Your task to perform on an android device: Turn on the flashlight Image 0: 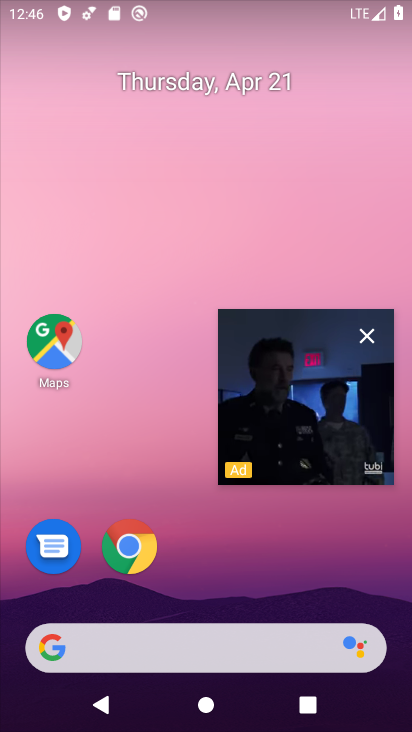
Step 0: click (364, 338)
Your task to perform on an android device: Turn on the flashlight Image 1: 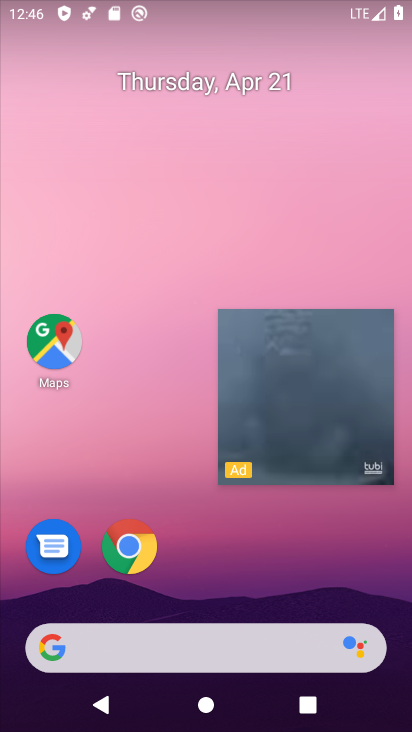
Step 1: click (371, 344)
Your task to perform on an android device: Turn on the flashlight Image 2: 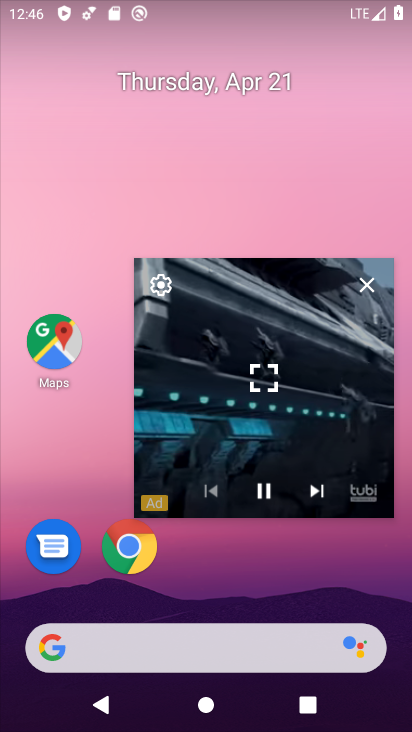
Step 2: click (373, 286)
Your task to perform on an android device: Turn on the flashlight Image 3: 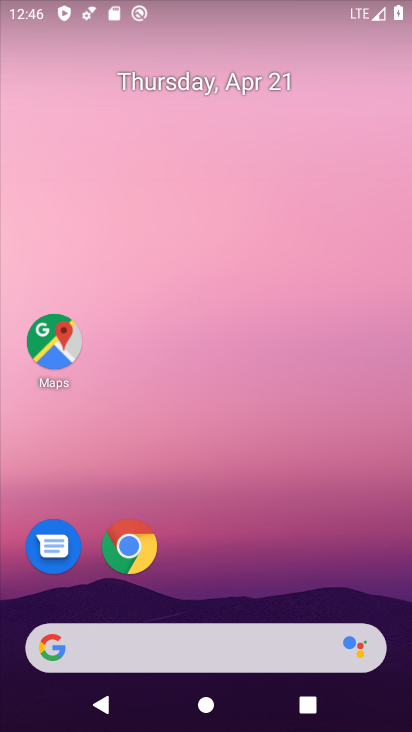
Step 3: drag from (283, 558) to (258, 74)
Your task to perform on an android device: Turn on the flashlight Image 4: 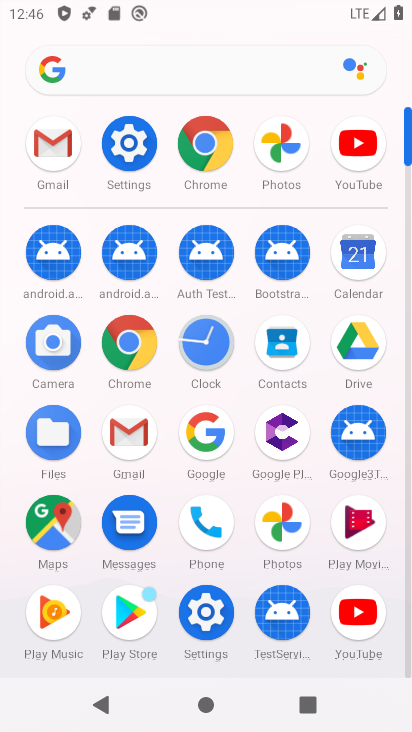
Step 4: click (136, 159)
Your task to perform on an android device: Turn on the flashlight Image 5: 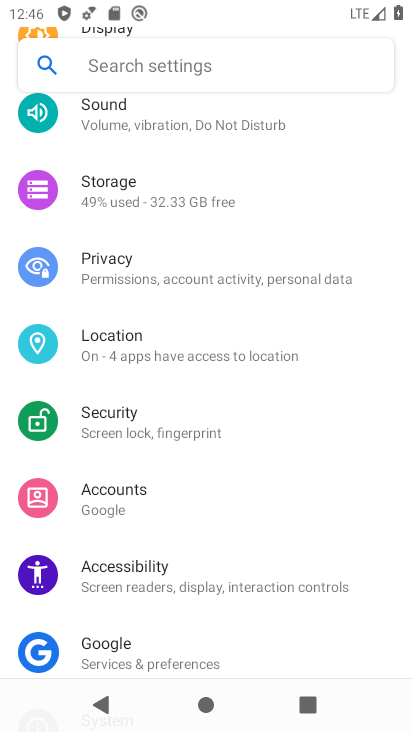
Step 5: click (191, 65)
Your task to perform on an android device: Turn on the flashlight Image 6: 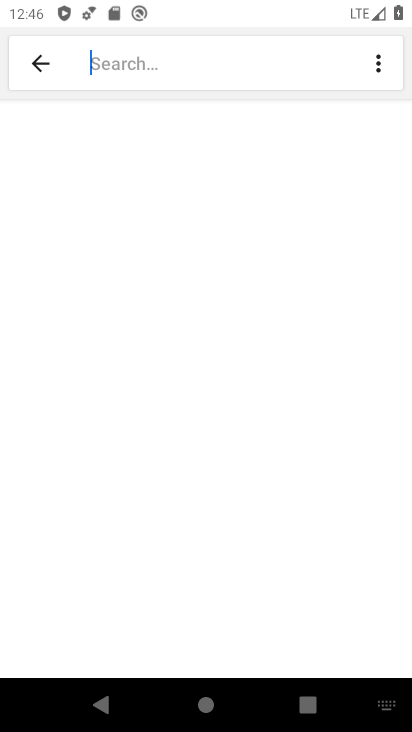
Step 6: type "flashlight"
Your task to perform on an android device: Turn on the flashlight Image 7: 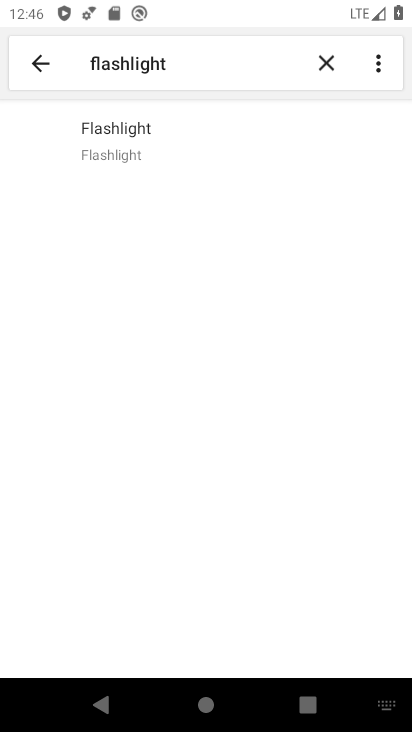
Step 7: click (113, 142)
Your task to perform on an android device: Turn on the flashlight Image 8: 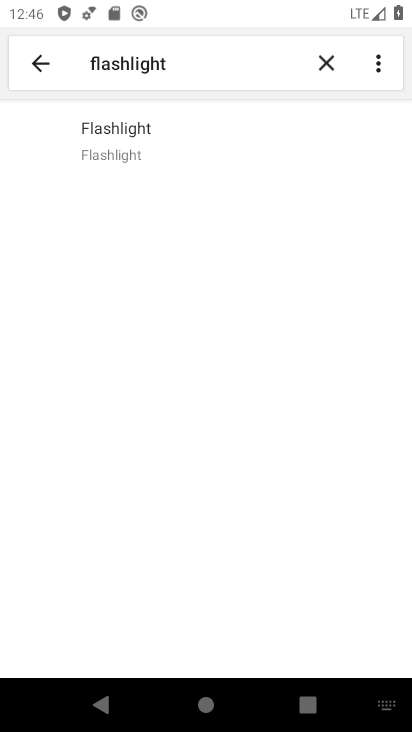
Step 8: task complete